Your task to perform on an android device: set the timer Image 0: 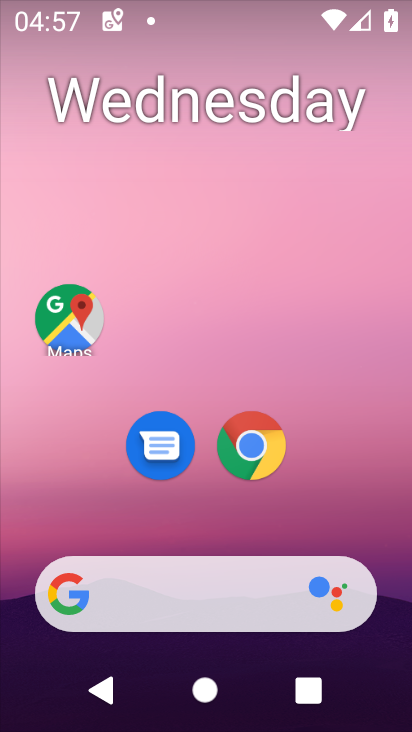
Step 0: drag from (178, 533) to (224, 34)
Your task to perform on an android device: set the timer Image 1: 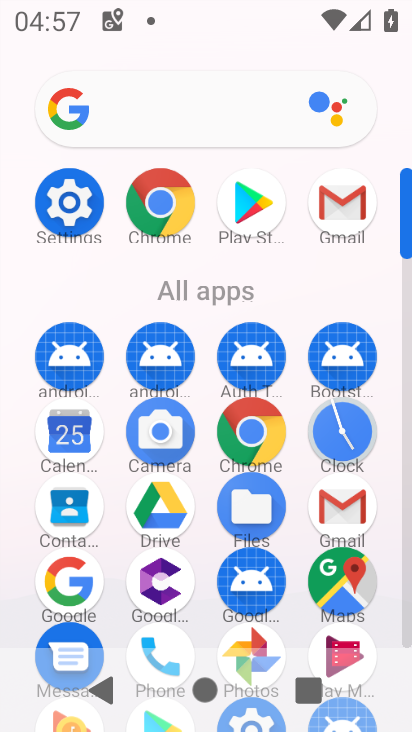
Step 1: click (343, 433)
Your task to perform on an android device: set the timer Image 2: 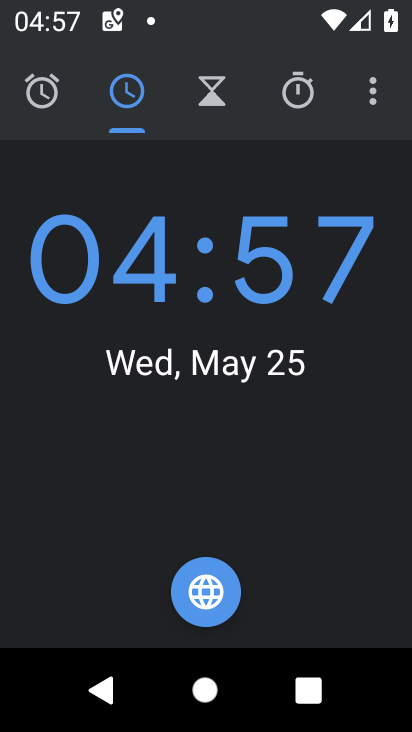
Step 2: click (211, 92)
Your task to perform on an android device: set the timer Image 3: 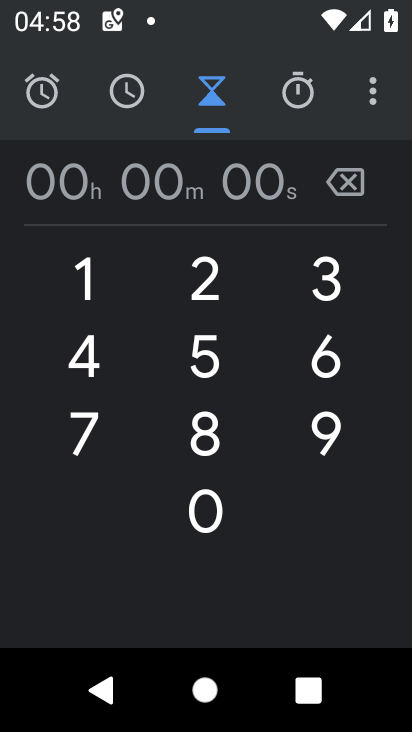
Step 3: click (330, 468)
Your task to perform on an android device: set the timer Image 4: 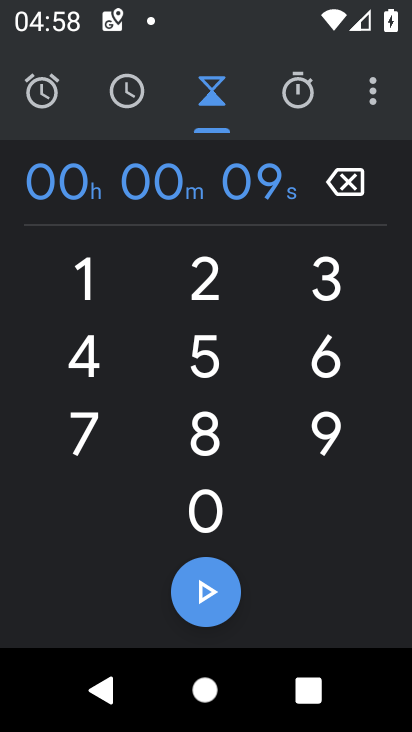
Step 4: click (206, 600)
Your task to perform on an android device: set the timer Image 5: 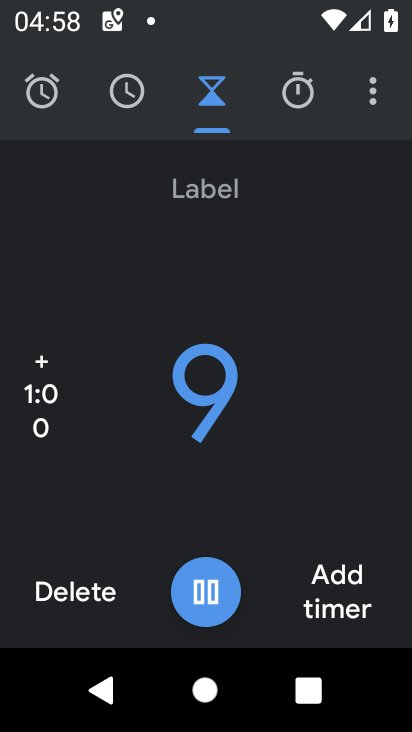
Step 5: task complete